Your task to perform on an android device: install app "Microsoft Authenticator" Image 0: 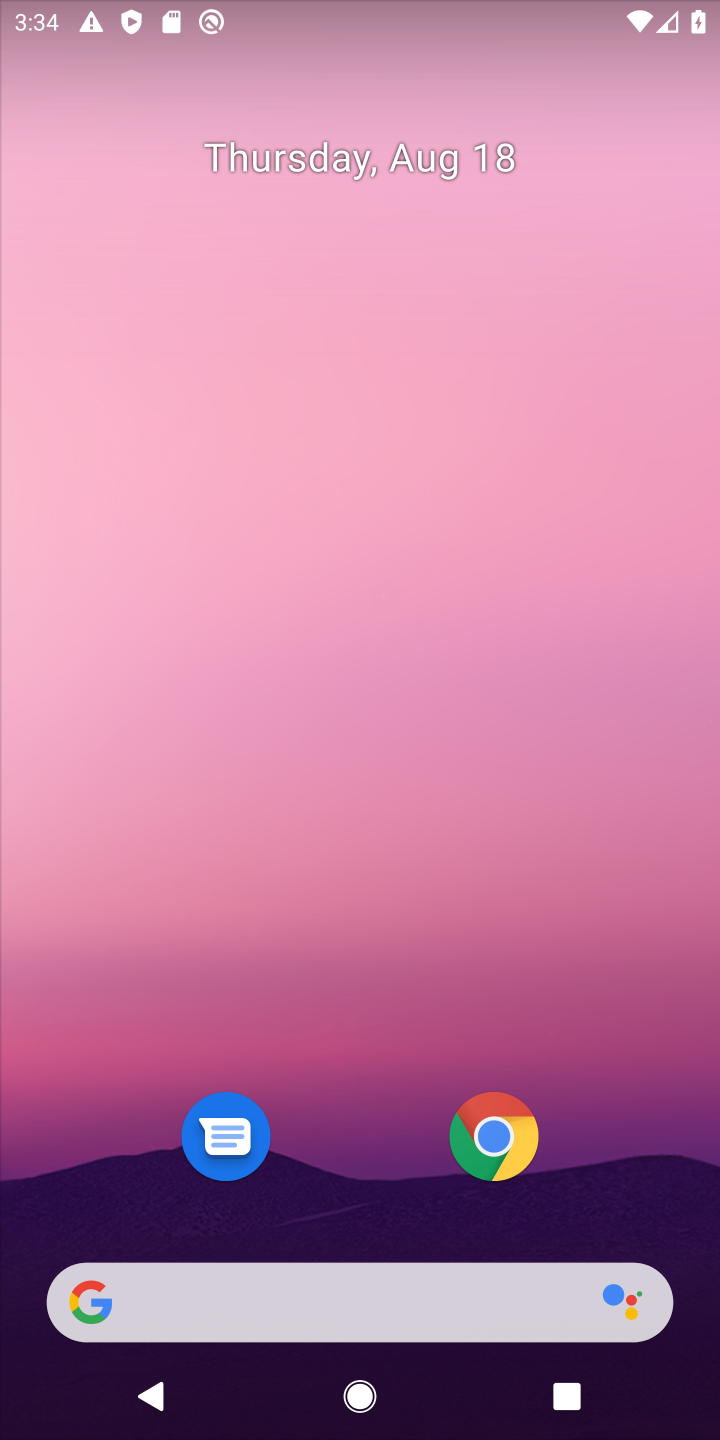
Step 0: drag from (316, 1249) to (383, 29)
Your task to perform on an android device: install app "Microsoft Authenticator" Image 1: 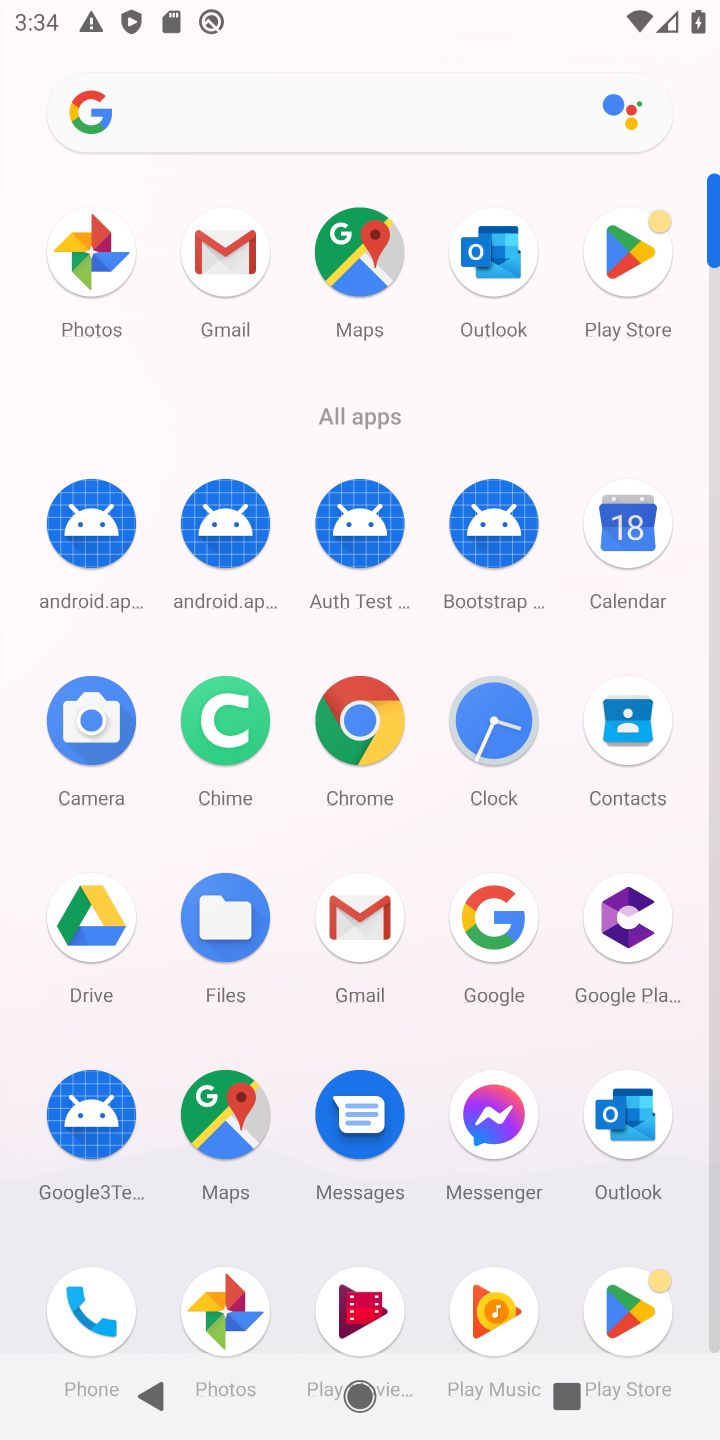
Step 1: click (618, 270)
Your task to perform on an android device: install app "Microsoft Authenticator" Image 2: 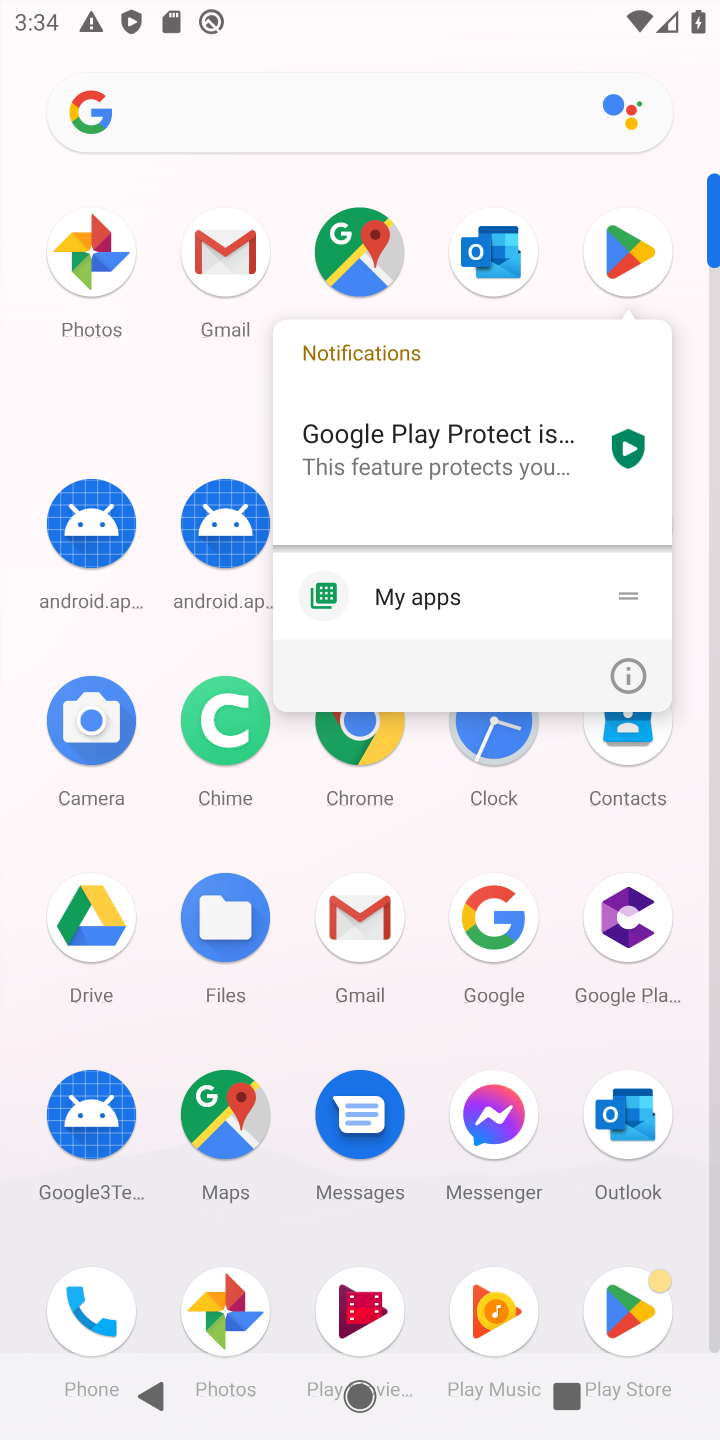
Step 2: click (612, 266)
Your task to perform on an android device: install app "Microsoft Authenticator" Image 3: 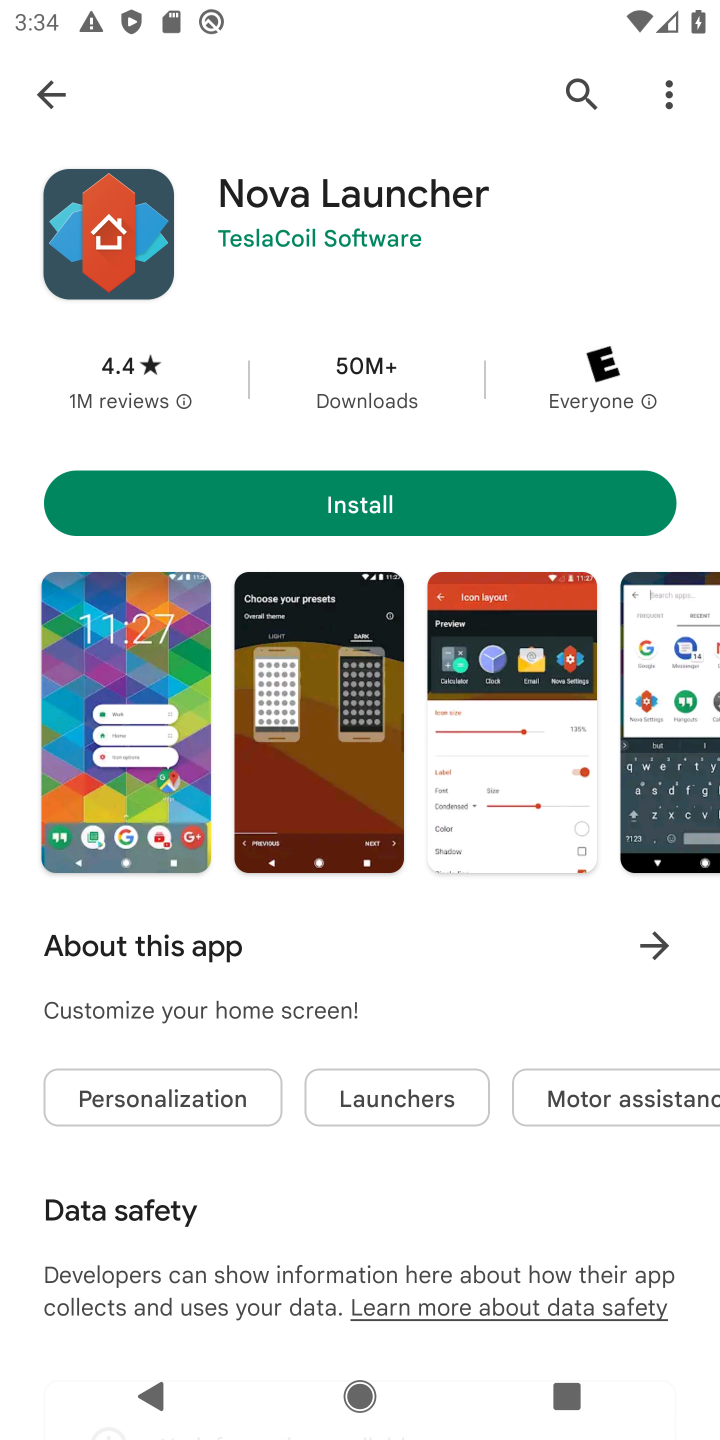
Step 3: click (45, 88)
Your task to perform on an android device: install app "Microsoft Authenticator" Image 4: 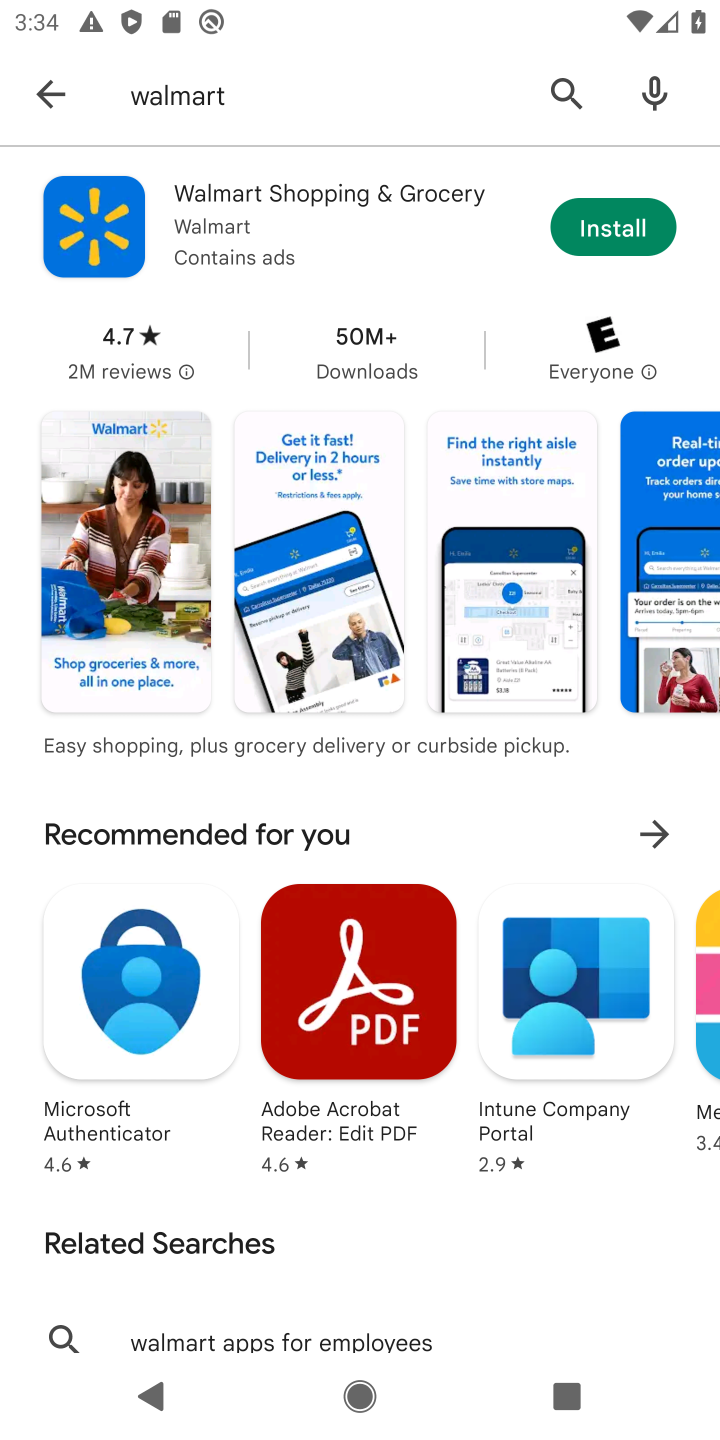
Step 4: click (230, 85)
Your task to perform on an android device: install app "Microsoft Authenticator" Image 5: 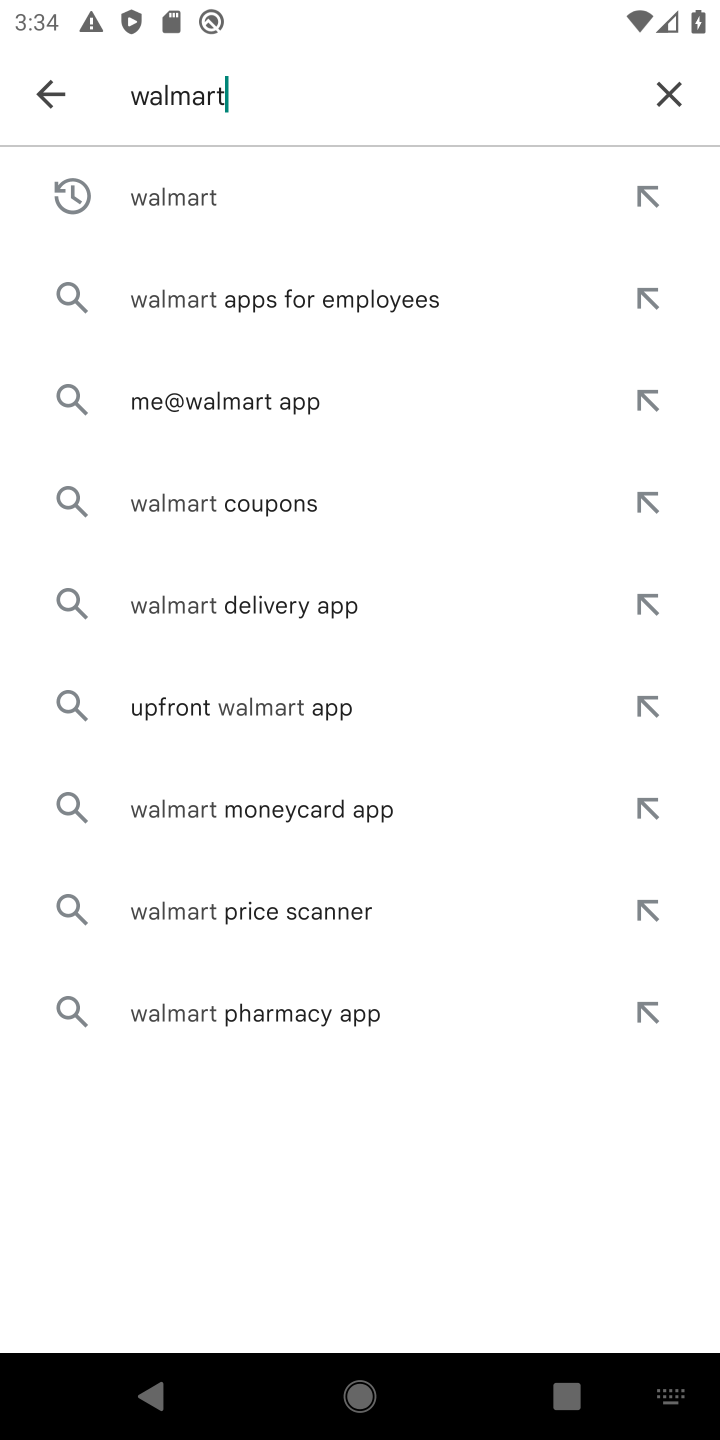
Step 5: click (683, 83)
Your task to perform on an android device: install app "Microsoft Authenticator" Image 6: 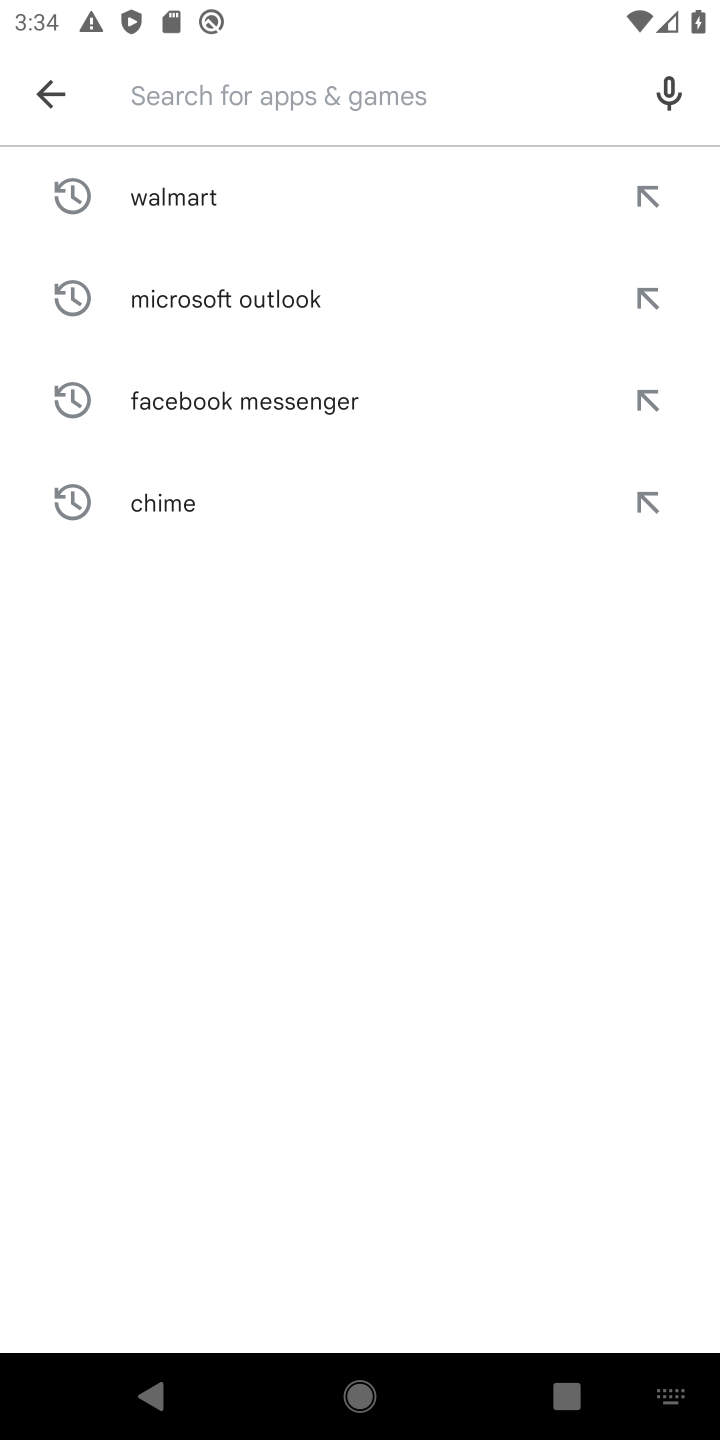
Step 6: type "microsoft authenticator"
Your task to perform on an android device: install app "Microsoft Authenticator" Image 7: 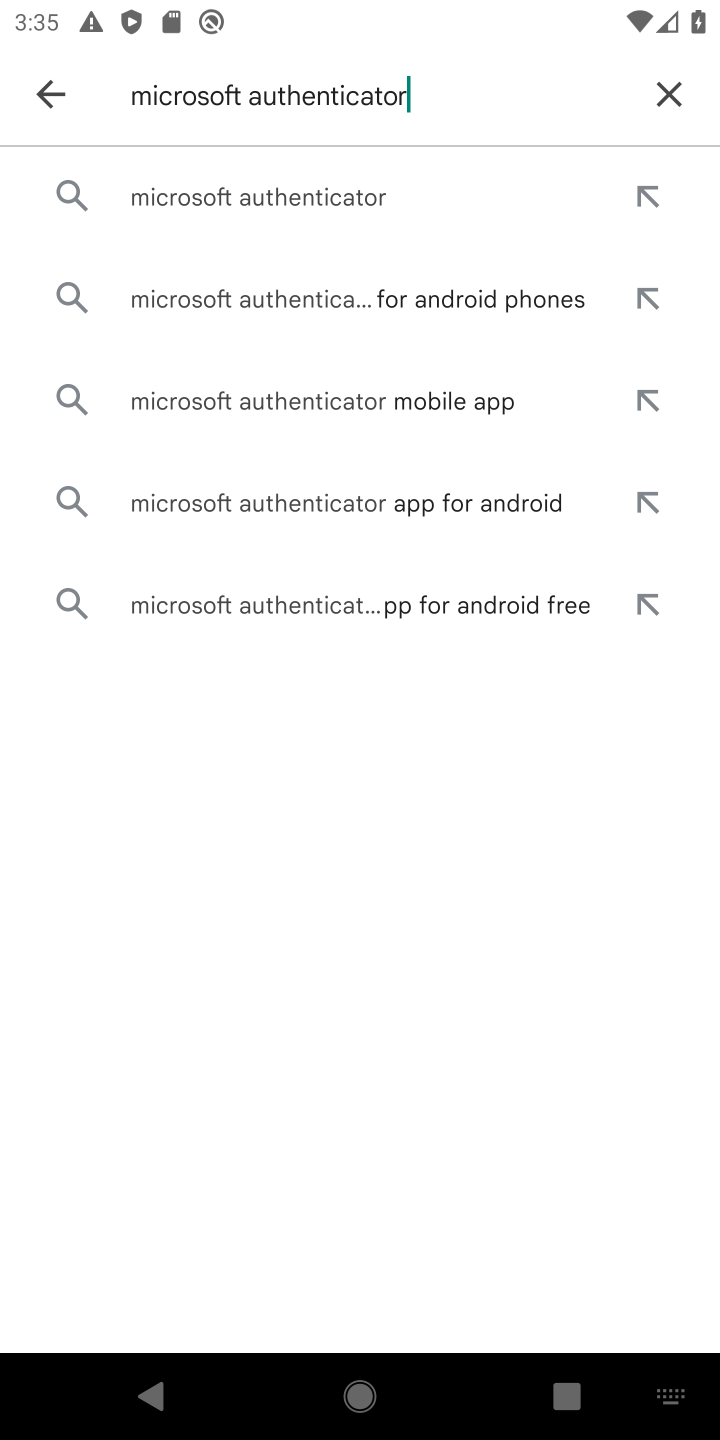
Step 7: click (297, 203)
Your task to perform on an android device: install app "Microsoft Authenticator" Image 8: 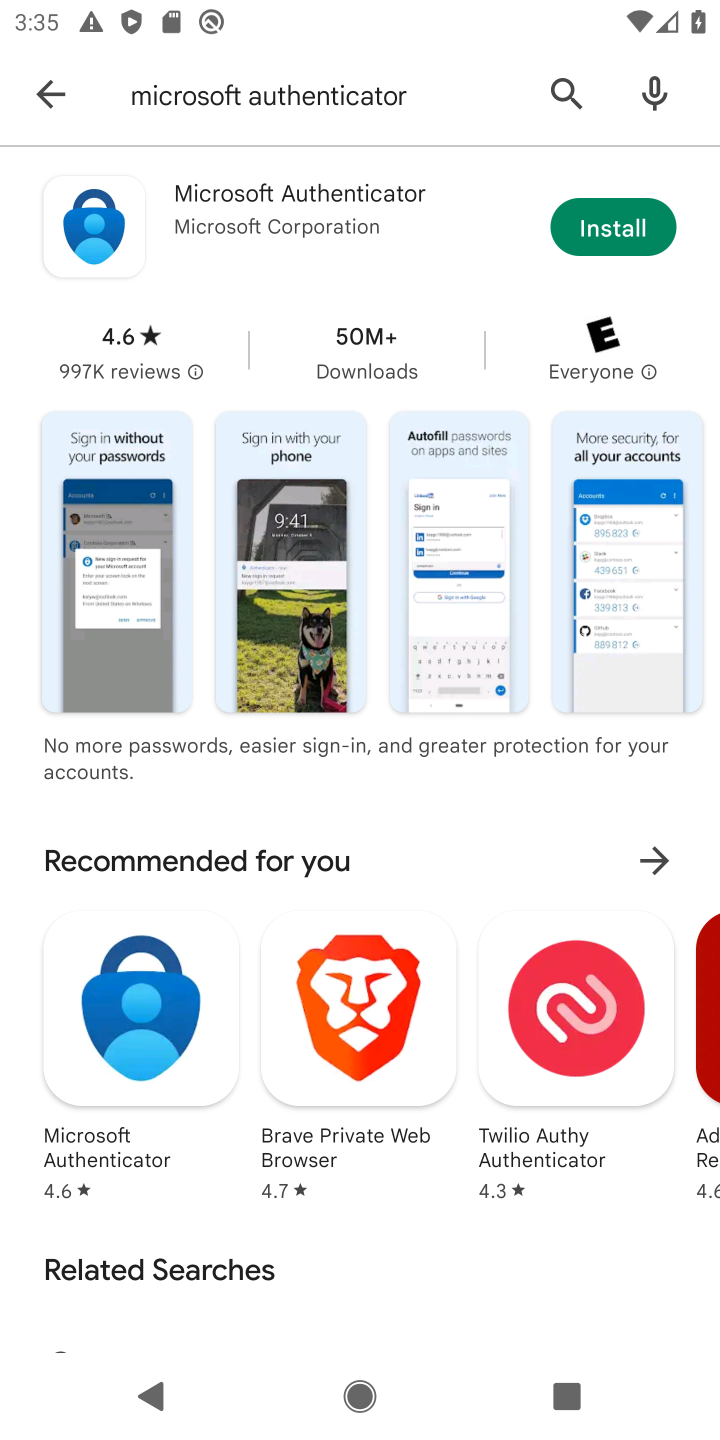
Step 8: click (611, 230)
Your task to perform on an android device: install app "Microsoft Authenticator" Image 9: 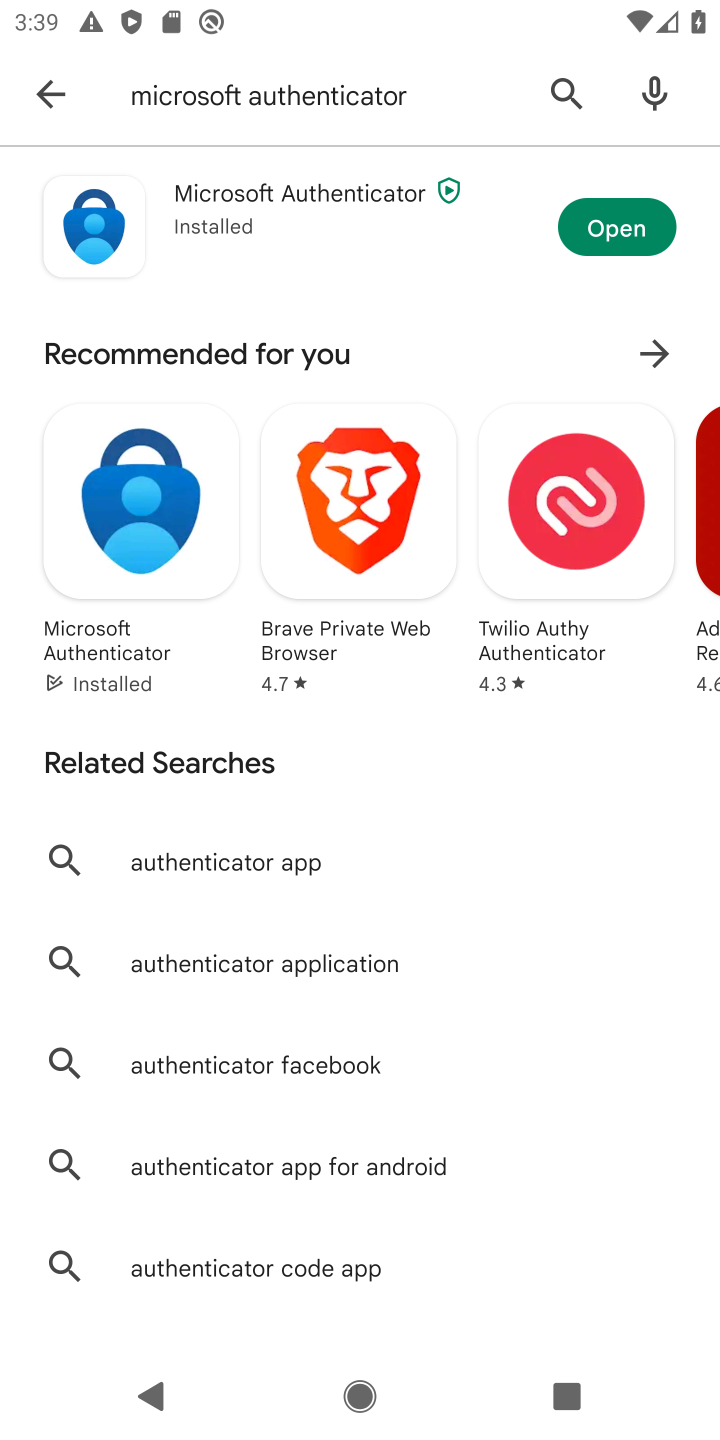
Step 9: task complete